Your task to perform on an android device: turn off wifi Image 0: 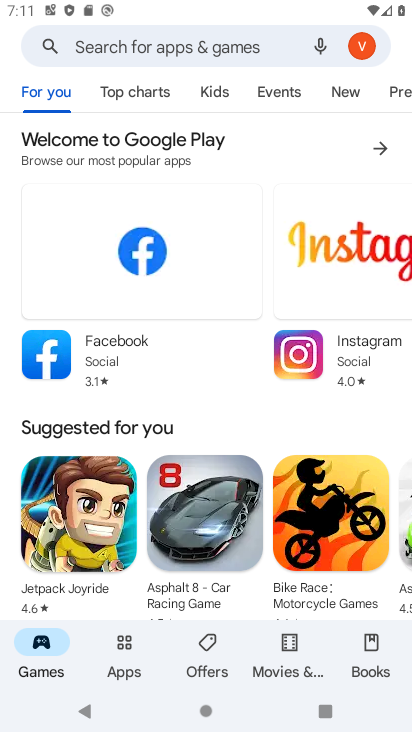
Step 0: press home button
Your task to perform on an android device: turn off wifi Image 1: 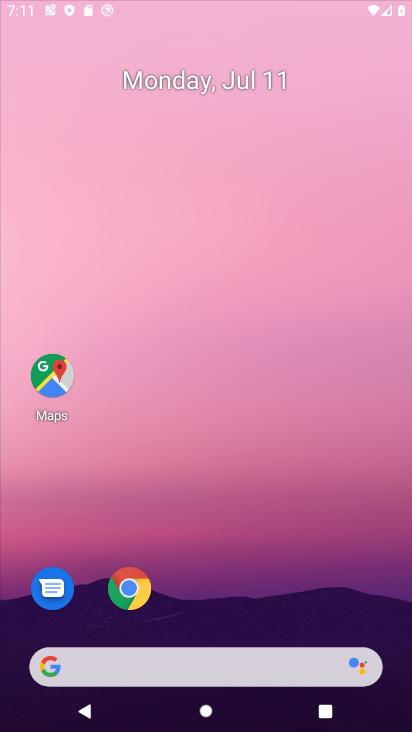
Step 1: drag from (391, 647) to (279, 87)
Your task to perform on an android device: turn off wifi Image 2: 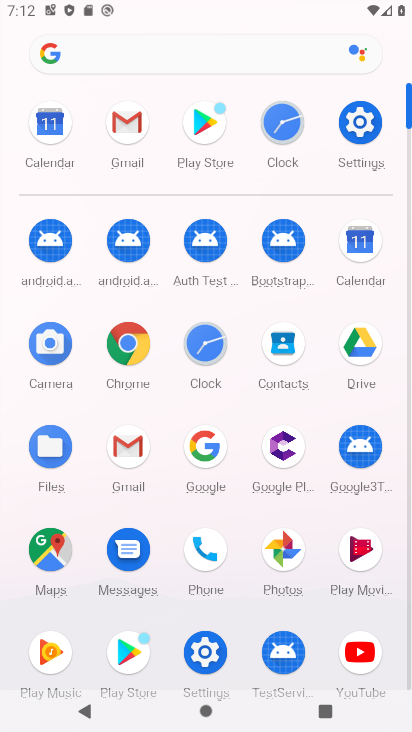
Step 2: drag from (225, 6) to (165, 226)
Your task to perform on an android device: turn off wifi Image 3: 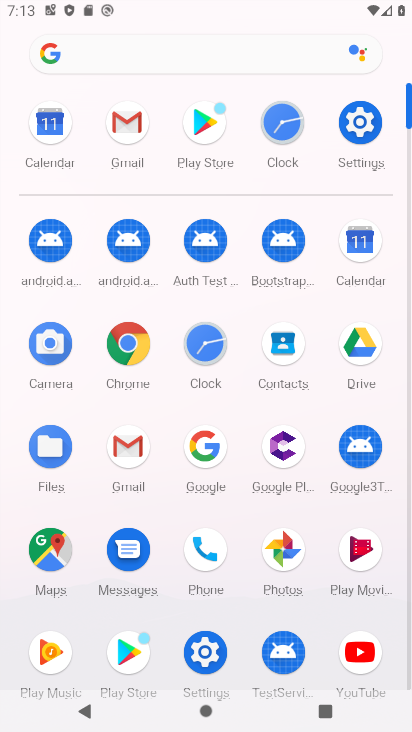
Step 3: drag from (166, 4) to (179, 448)
Your task to perform on an android device: turn off wifi Image 4: 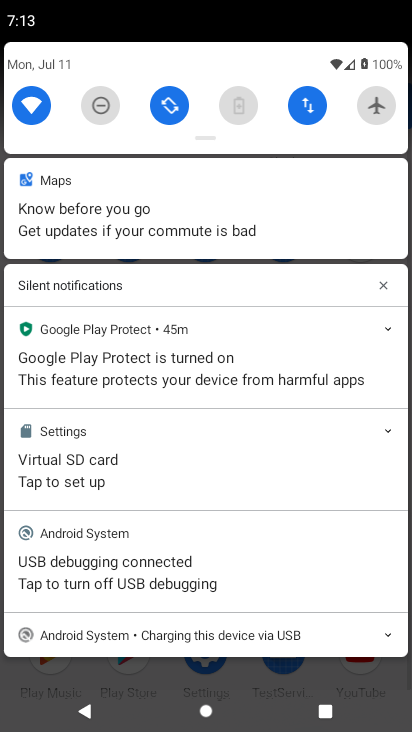
Step 4: click (27, 115)
Your task to perform on an android device: turn off wifi Image 5: 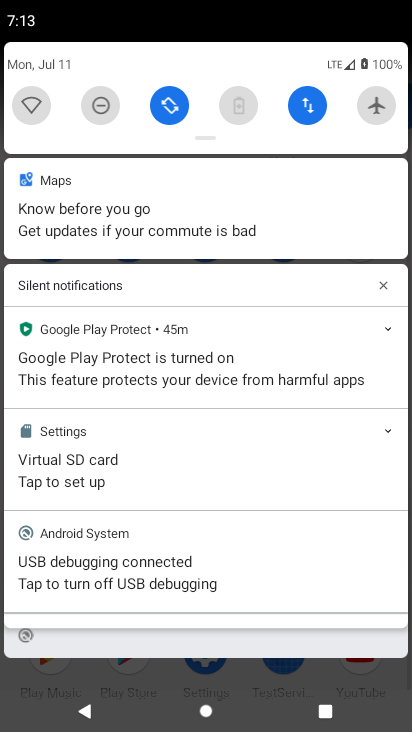
Step 5: task complete